Your task to perform on an android device: clear all cookies in the chrome app Image 0: 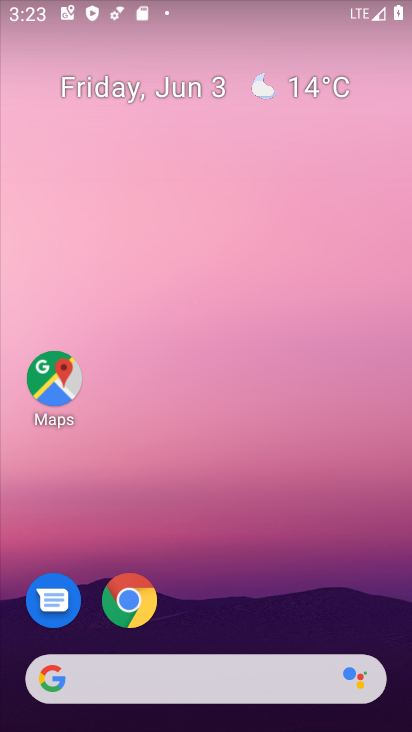
Step 0: click (159, 601)
Your task to perform on an android device: clear all cookies in the chrome app Image 1: 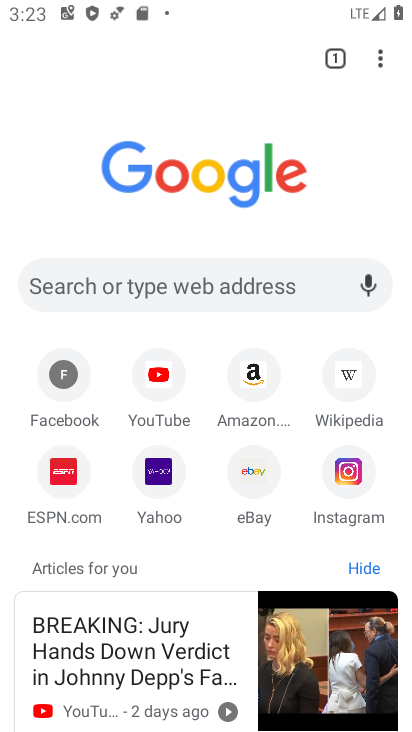
Step 1: click (377, 52)
Your task to perform on an android device: clear all cookies in the chrome app Image 2: 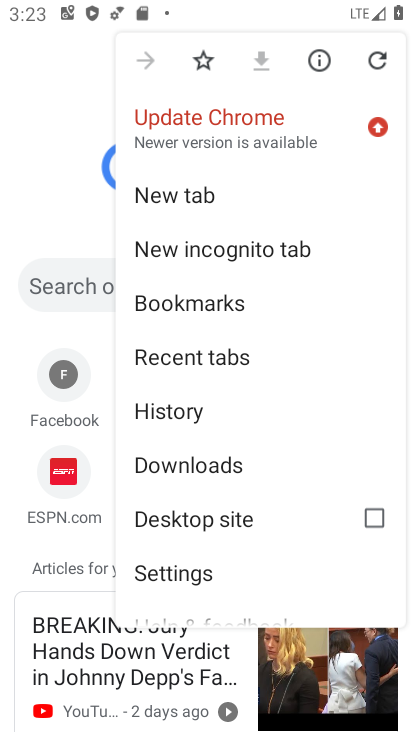
Step 2: click (210, 564)
Your task to perform on an android device: clear all cookies in the chrome app Image 3: 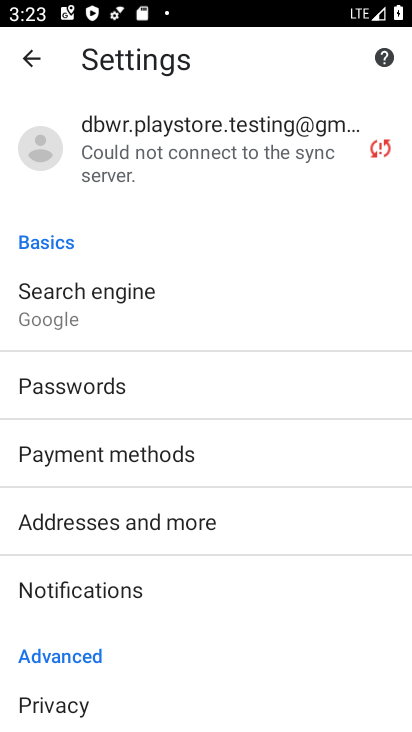
Step 3: drag from (226, 681) to (251, 419)
Your task to perform on an android device: clear all cookies in the chrome app Image 4: 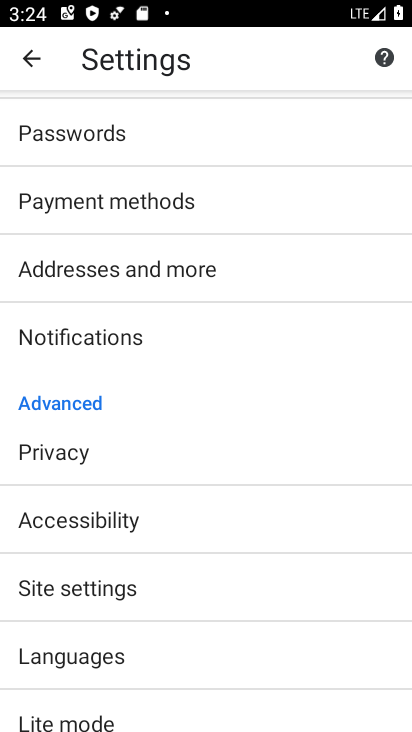
Step 4: drag from (278, 654) to (247, 522)
Your task to perform on an android device: clear all cookies in the chrome app Image 5: 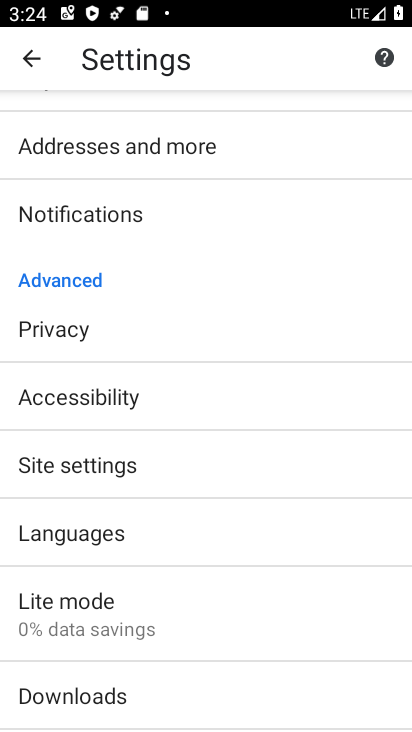
Step 5: click (180, 342)
Your task to perform on an android device: clear all cookies in the chrome app Image 6: 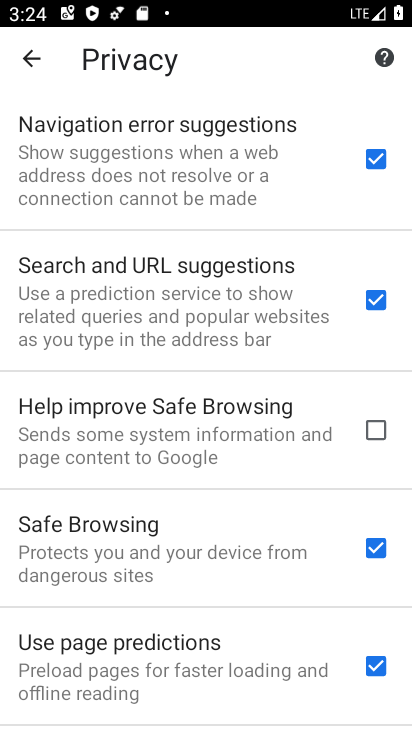
Step 6: drag from (284, 549) to (256, 404)
Your task to perform on an android device: clear all cookies in the chrome app Image 7: 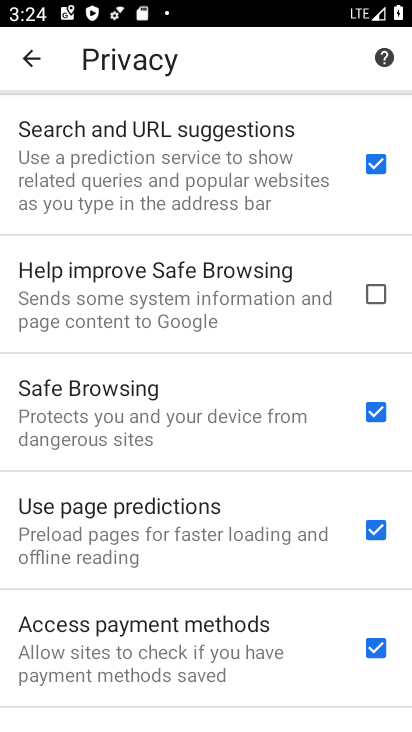
Step 7: drag from (259, 505) to (223, 159)
Your task to perform on an android device: clear all cookies in the chrome app Image 8: 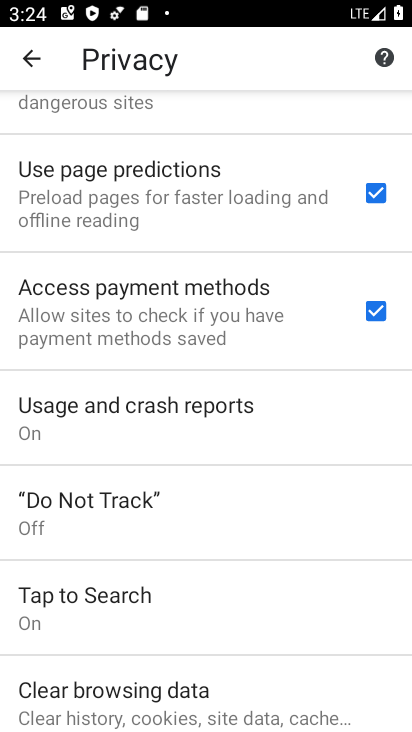
Step 8: drag from (299, 570) to (246, 313)
Your task to perform on an android device: clear all cookies in the chrome app Image 9: 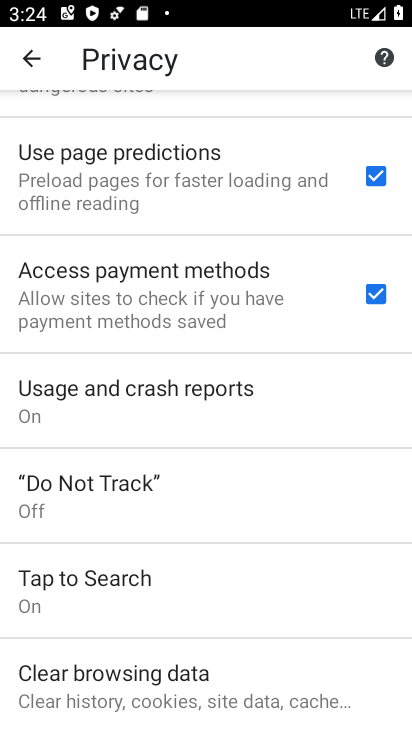
Step 9: click (117, 710)
Your task to perform on an android device: clear all cookies in the chrome app Image 10: 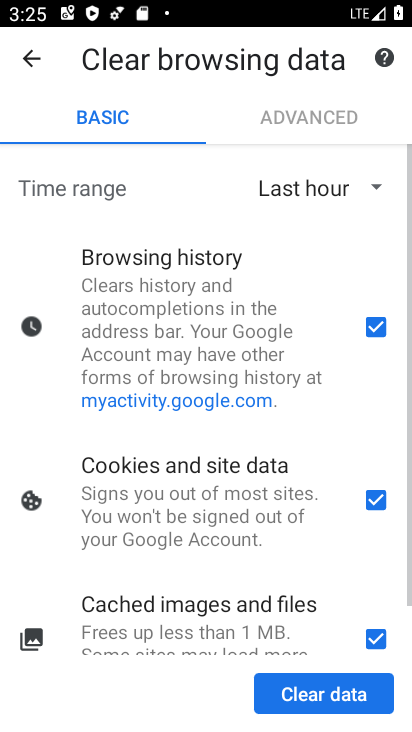
Step 10: click (342, 178)
Your task to perform on an android device: clear all cookies in the chrome app Image 11: 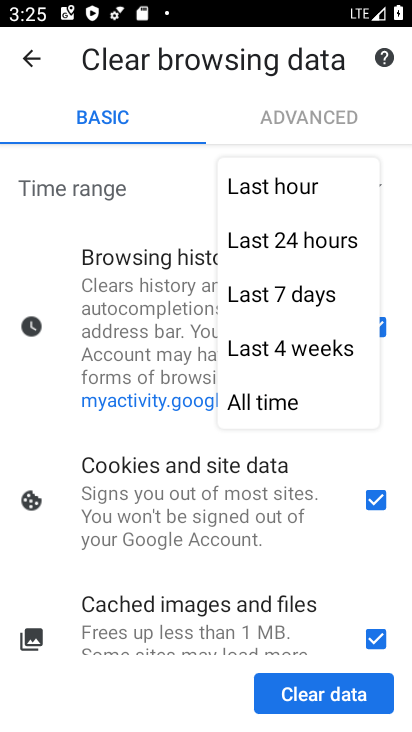
Step 11: click (292, 399)
Your task to perform on an android device: clear all cookies in the chrome app Image 12: 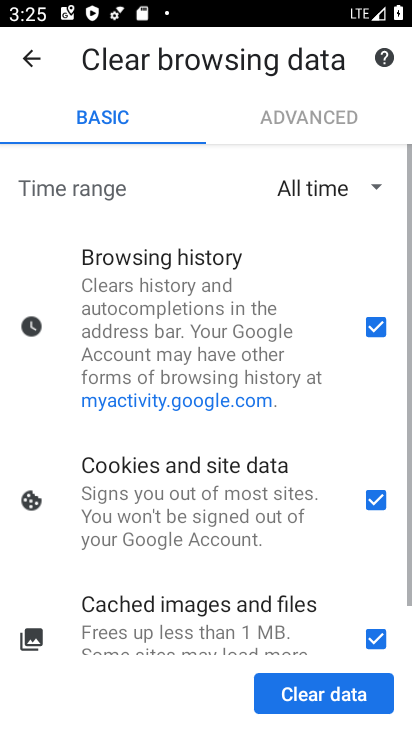
Step 12: click (381, 323)
Your task to perform on an android device: clear all cookies in the chrome app Image 13: 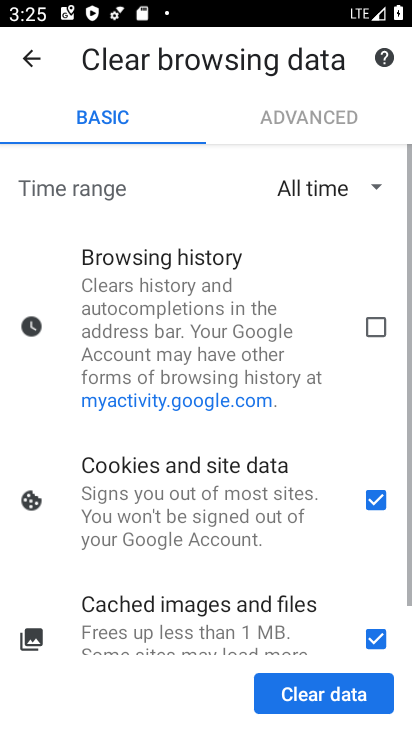
Step 13: click (375, 635)
Your task to perform on an android device: clear all cookies in the chrome app Image 14: 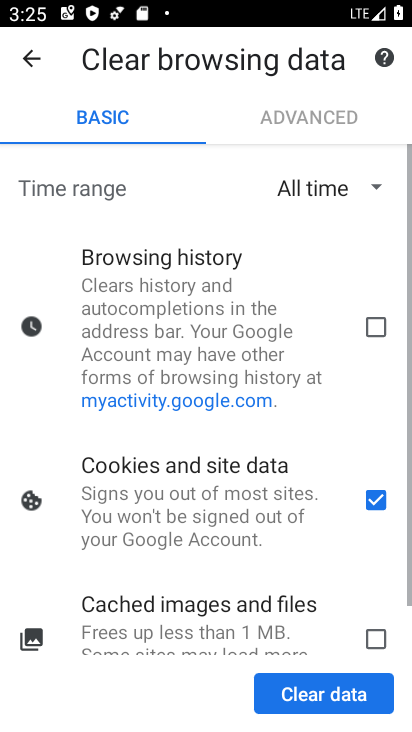
Step 14: click (336, 699)
Your task to perform on an android device: clear all cookies in the chrome app Image 15: 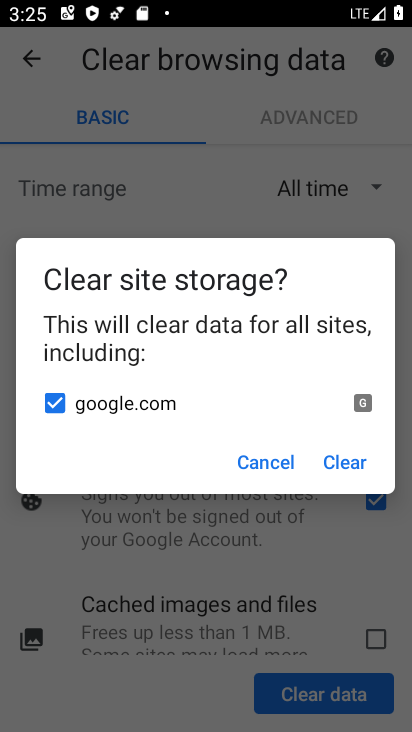
Step 15: click (354, 467)
Your task to perform on an android device: clear all cookies in the chrome app Image 16: 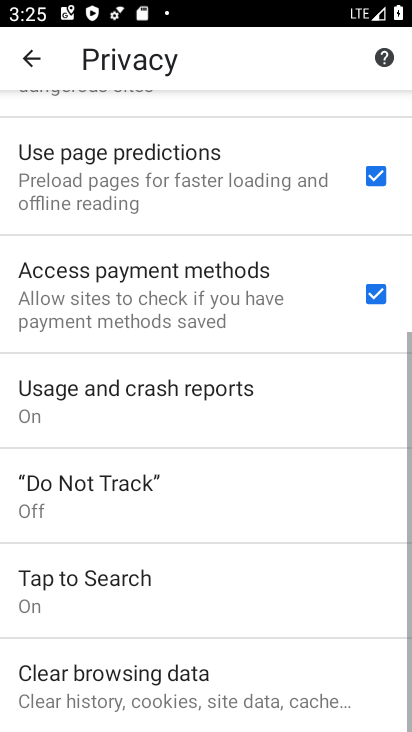
Step 16: task complete